Your task to perform on an android device: Open Chrome and go to the settings page Image 0: 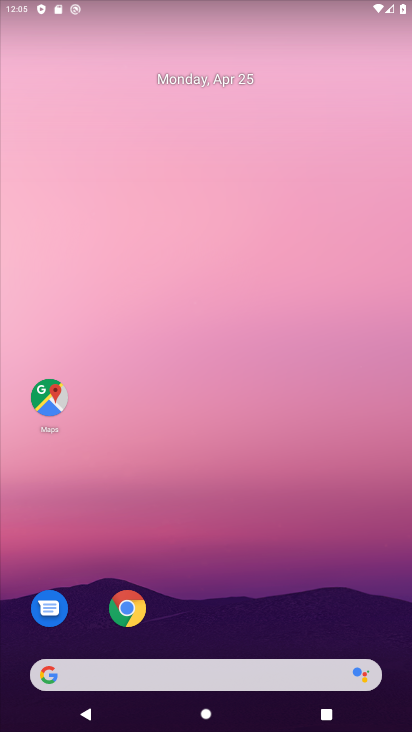
Step 0: click (130, 601)
Your task to perform on an android device: Open Chrome and go to the settings page Image 1: 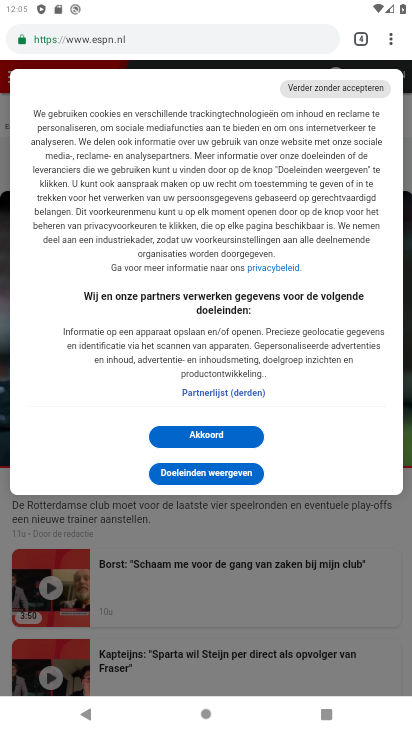
Step 1: task complete